Your task to perform on an android device: turn off smart reply in the gmail app Image 0: 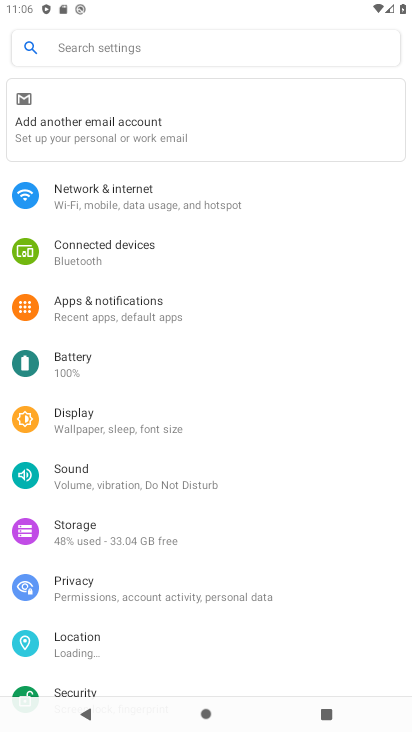
Step 0: press home button
Your task to perform on an android device: turn off smart reply in the gmail app Image 1: 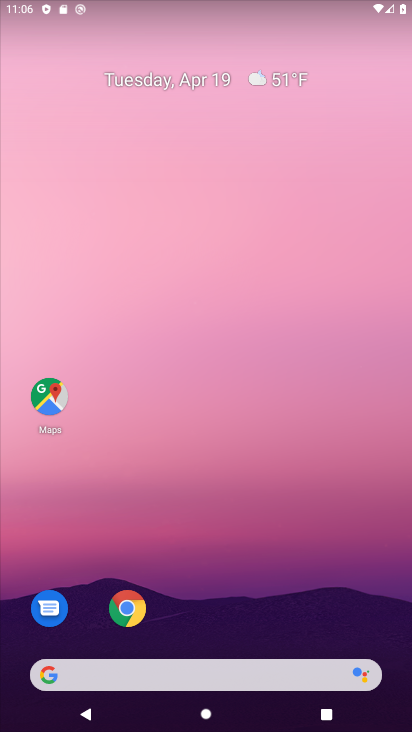
Step 1: drag from (319, 618) to (338, 139)
Your task to perform on an android device: turn off smart reply in the gmail app Image 2: 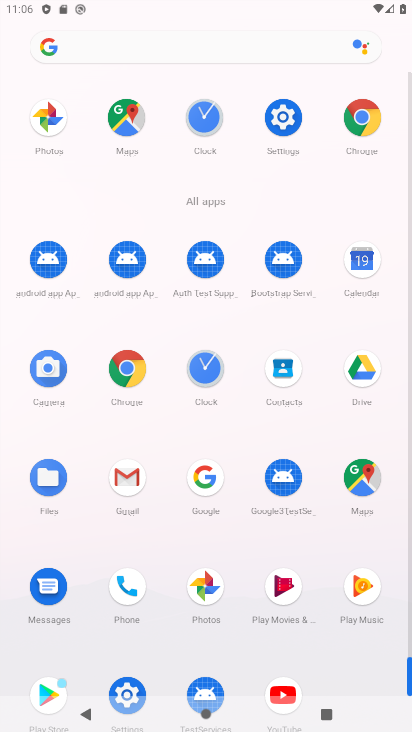
Step 2: click (124, 484)
Your task to perform on an android device: turn off smart reply in the gmail app Image 3: 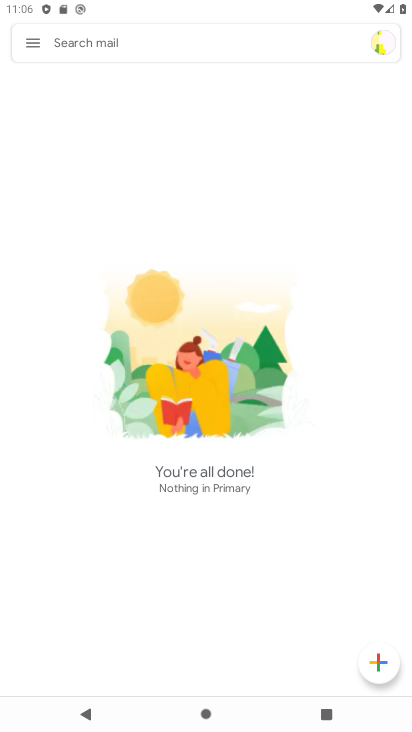
Step 3: click (27, 40)
Your task to perform on an android device: turn off smart reply in the gmail app Image 4: 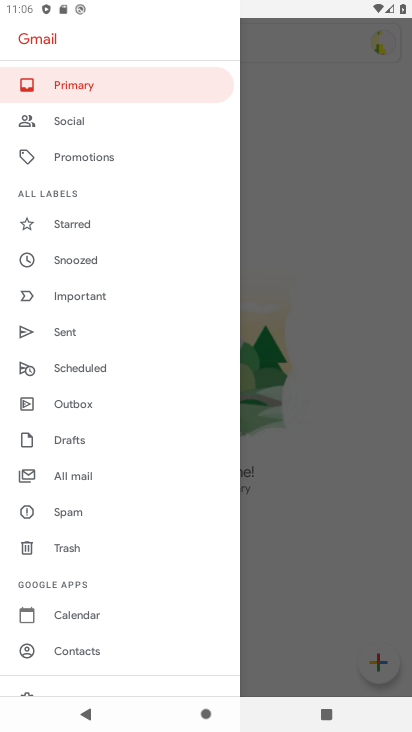
Step 4: drag from (187, 577) to (179, 412)
Your task to perform on an android device: turn off smart reply in the gmail app Image 5: 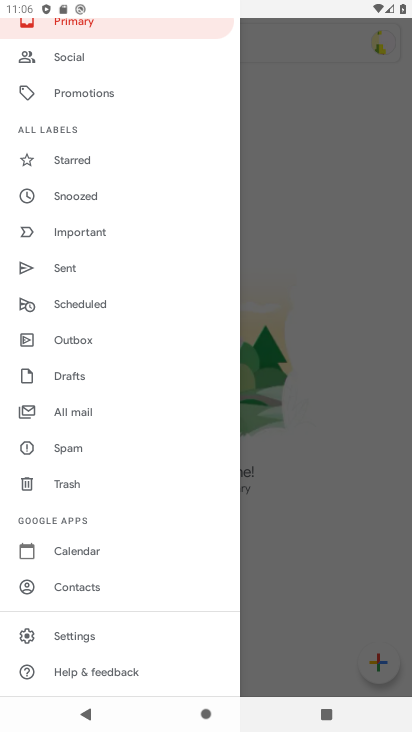
Step 5: drag from (181, 312) to (185, 484)
Your task to perform on an android device: turn off smart reply in the gmail app Image 6: 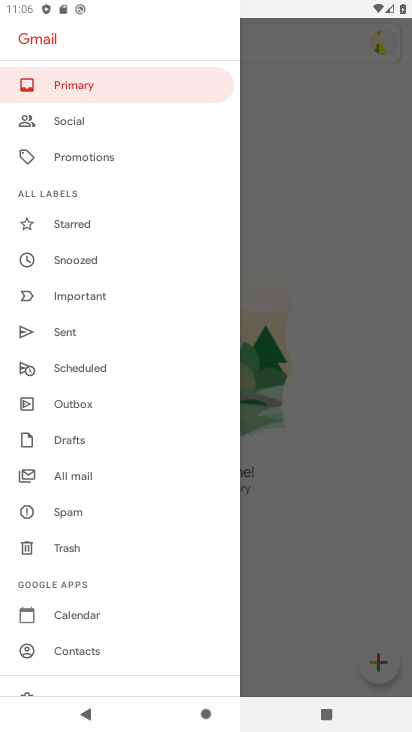
Step 6: drag from (161, 564) to (186, 365)
Your task to perform on an android device: turn off smart reply in the gmail app Image 7: 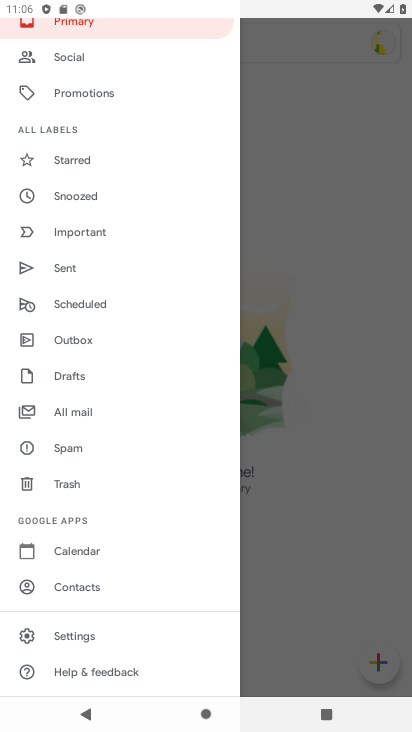
Step 7: click (88, 642)
Your task to perform on an android device: turn off smart reply in the gmail app Image 8: 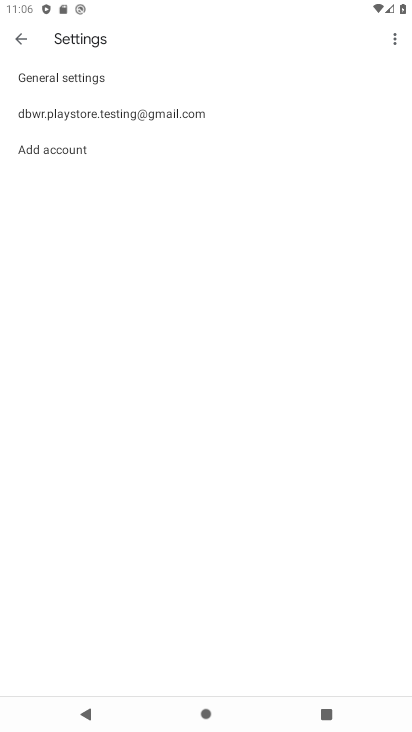
Step 8: click (199, 106)
Your task to perform on an android device: turn off smart reply in the gmail app Image 9: 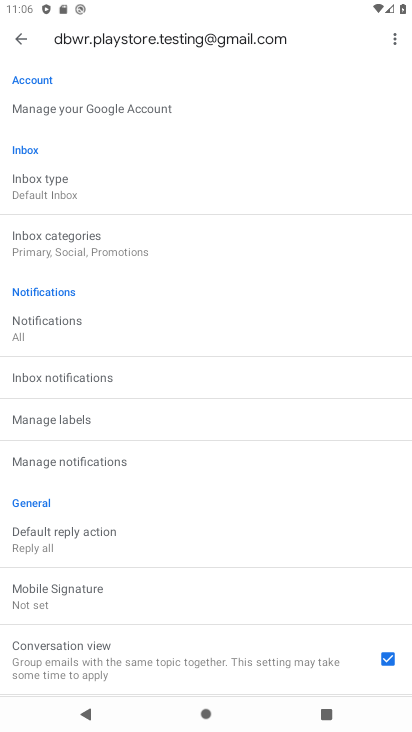
Step 9: drag from (313, 516) to (318, 323)
Your task to perform on an android device: turn off smart reply in the gmail app Image 10: 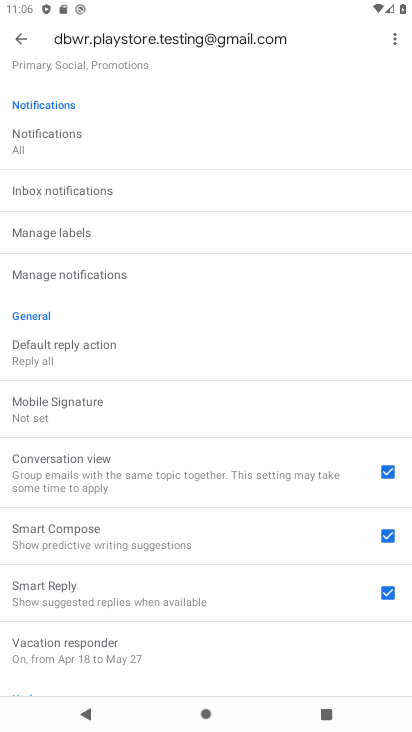
Step 10: drag from (277, 638) to (278, 340)
Your task to perform on an android device: turn off smart reply in the gmail app Image 11: 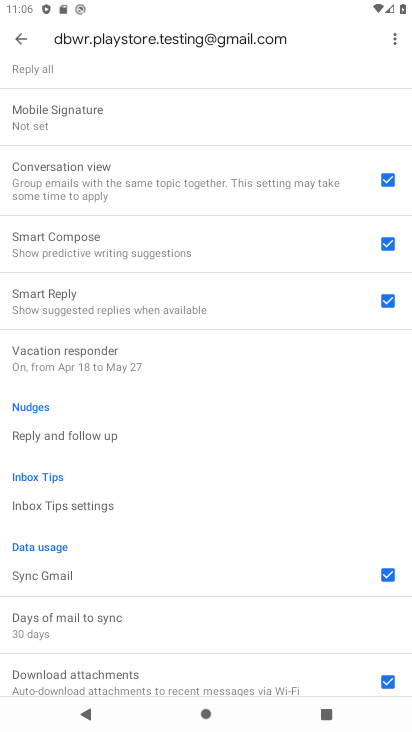
Step 11: drag from (266, 623) to (267, 397)
Your task to perform on an android device: turn off smart reply in the gmail app Image 12: 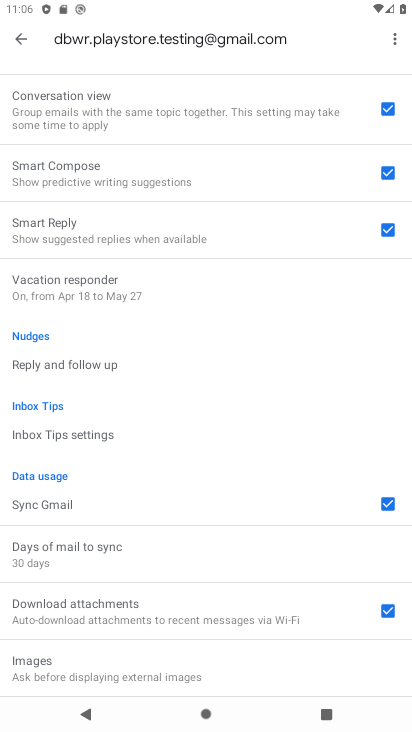
Step 12: drag from (306, 227) to (300, 445)
Your task to perform on an android device: turn off smart reply in the gmail app Image 13: 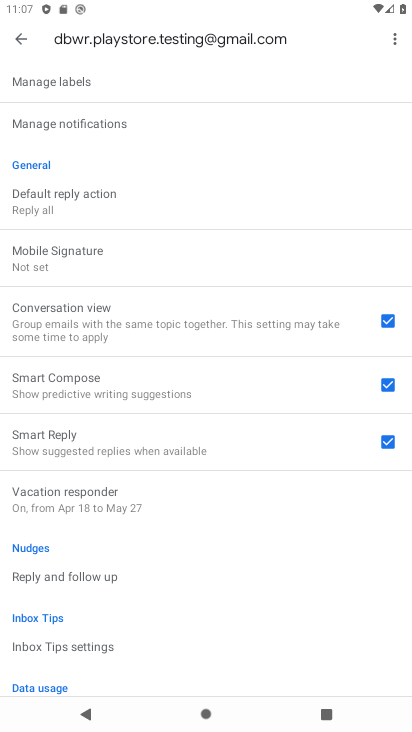
Step 13: click (396, 442)
Your task to perform on an android device: turn off smart reply in the gmail app Image 14: 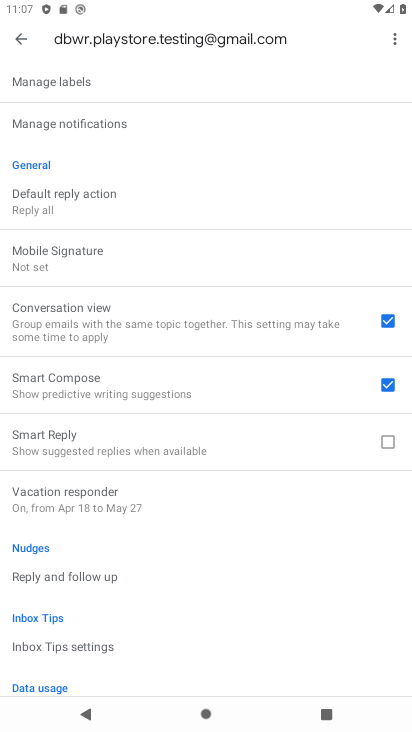
Step 14: task complete